Your task to perform on an android device: Go to Wikipedia Image 0: 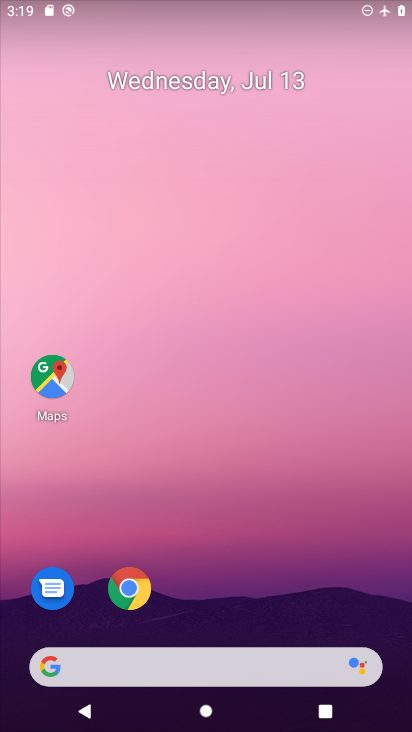
Step 0: drag from (237, 630) to (203, 142)
Your task to perform on an android device: Go to Wikipedia Image 1: 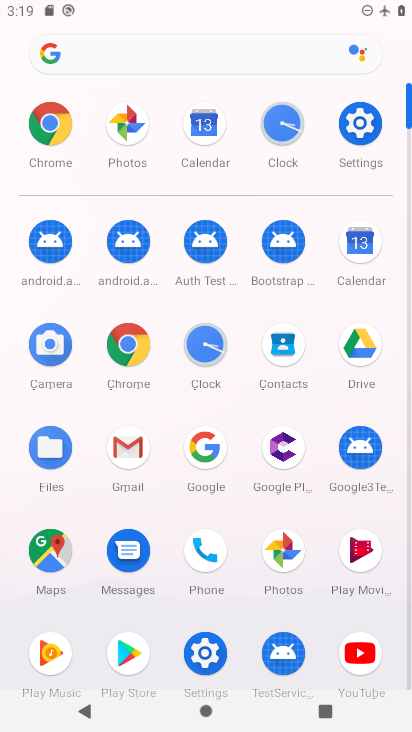
Step 1: click (58, 130)
Your task to perform on an android device: Go to Wikipedia Image 2: 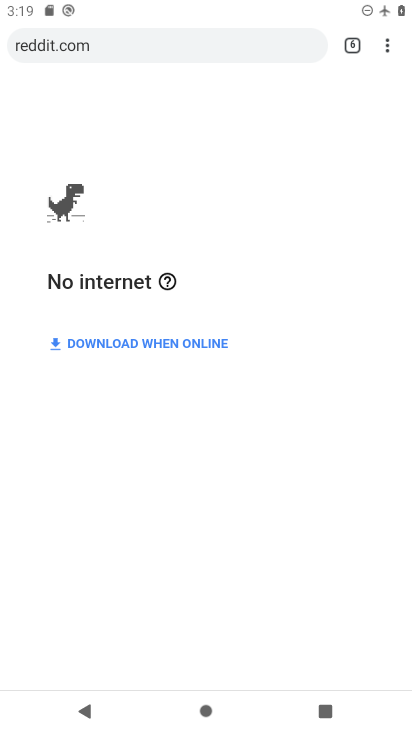
Step 2: click (356, 46)
Your task to perform on an android device: Go to Wikipedia Image 3: 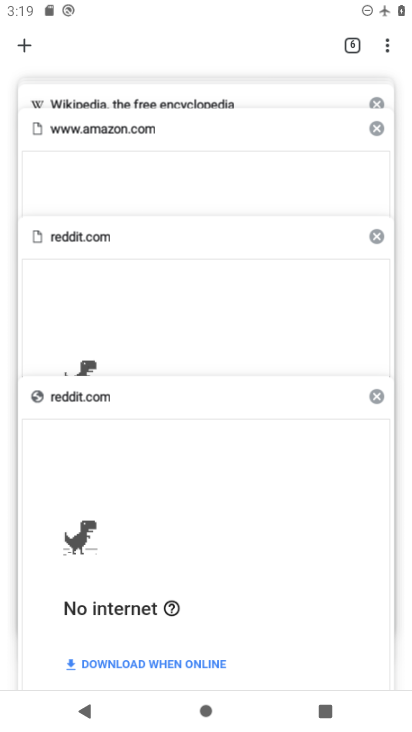
Step 3: click (23, 41)
Your task to perform on an android device: Go to Wikipedia Image 4: 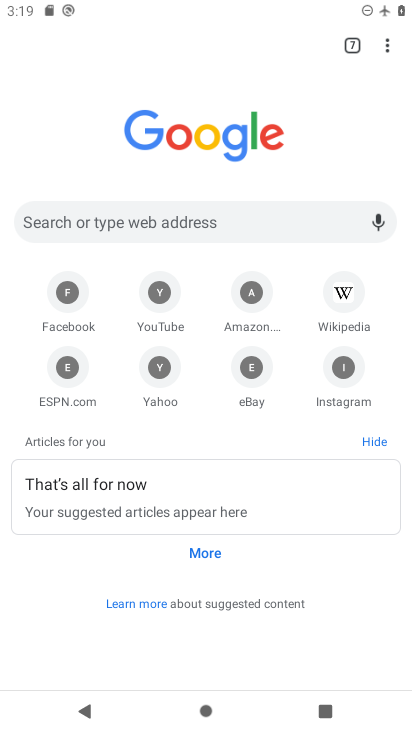
Step 4: click (345, 289)
Your task to perform on an android device: Go to Wikipedia Image 5: 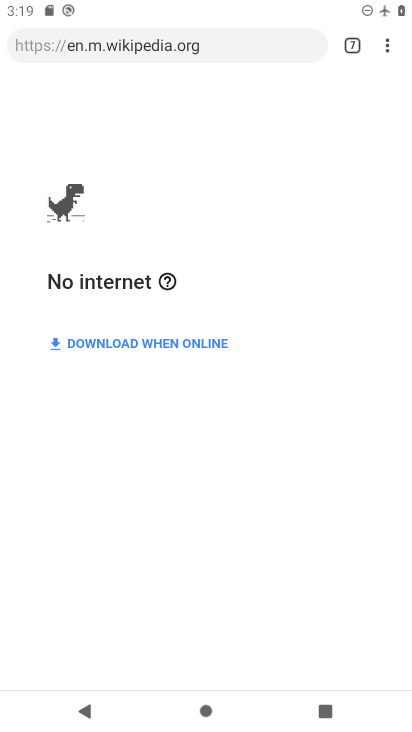
Step 5: task complete